Your task to perform on an android device: Search for macbook pro 15 inch on costco.com, select the first entry, and add it to the cart. Image 0: 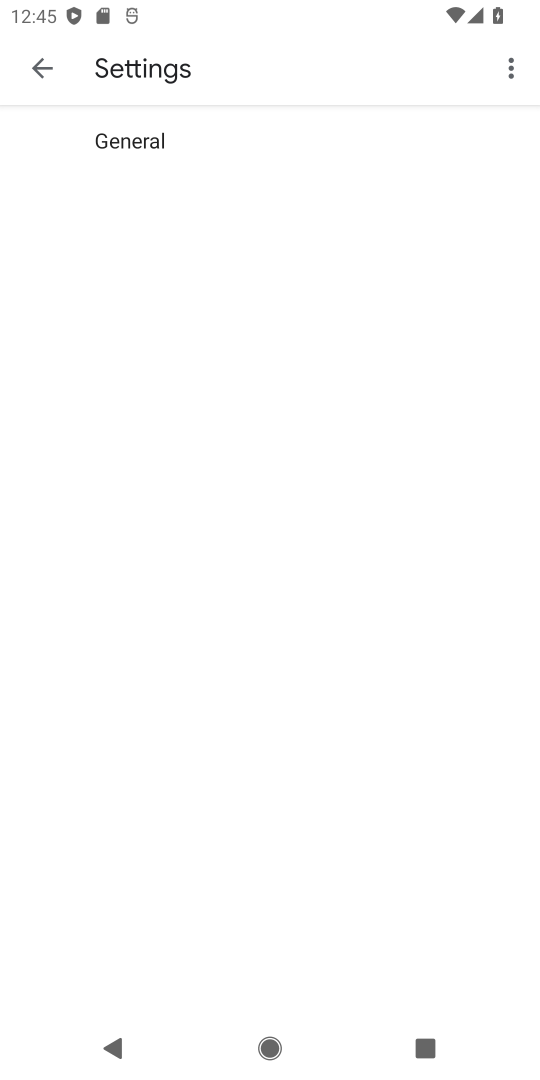
Step 0: press home button
Your task to perform on an android device: Search for macbook pro 15 inch on costco.com, select the first entry, and add it to the cart. Image 1: 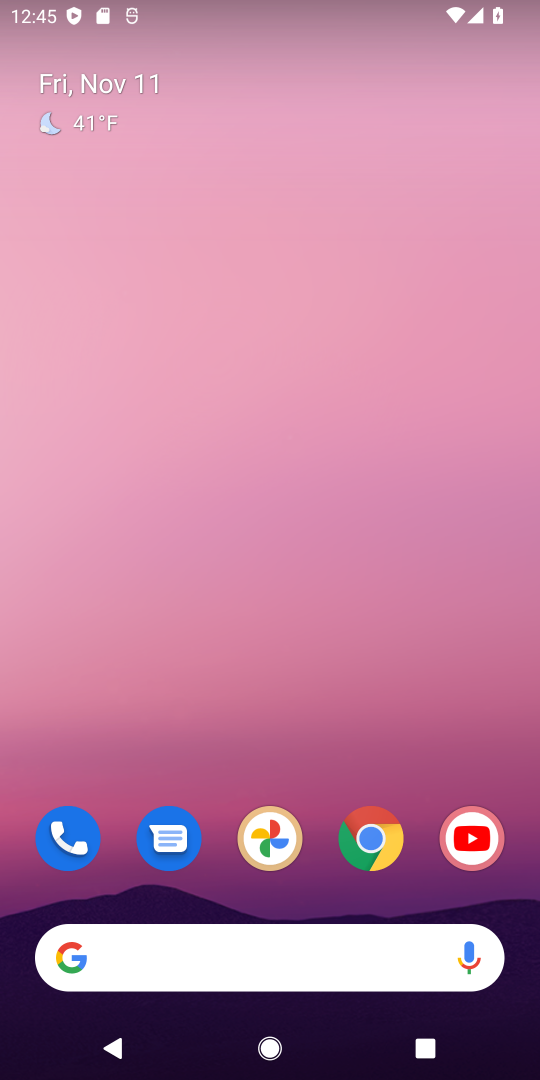
Step 1: click (289, 968)
Your task to perform on an android device: Search for macbook pro 15 inch on costco.com, select the first entry, and add it to the cart. Image 2: 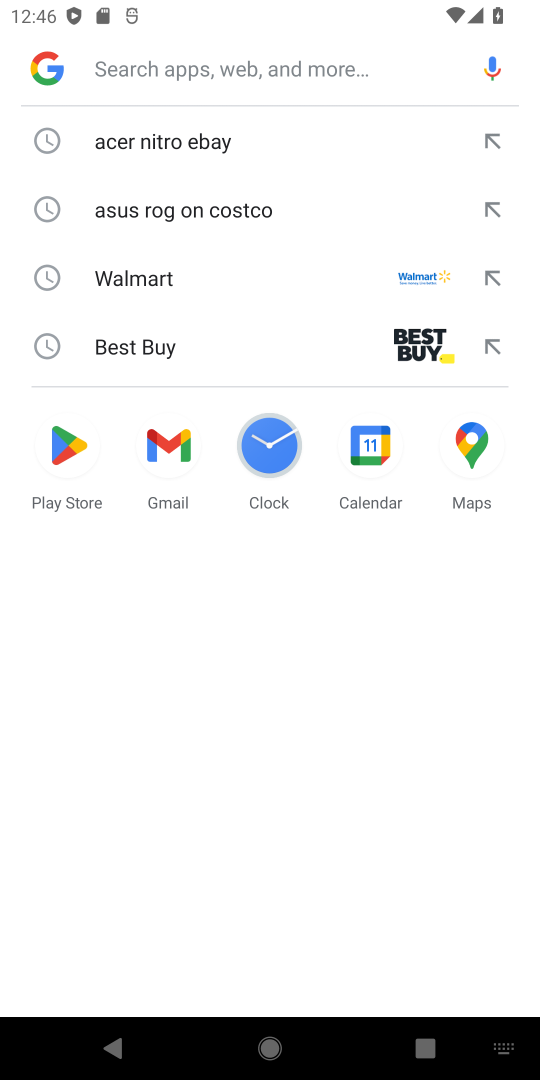
Step 2: type "macbook pro 15 inch on costco"
Your task to perform on an android device: Search for macbook pro 15 inch on costco.com, select the first entry, and add it to the cart. Image 3: 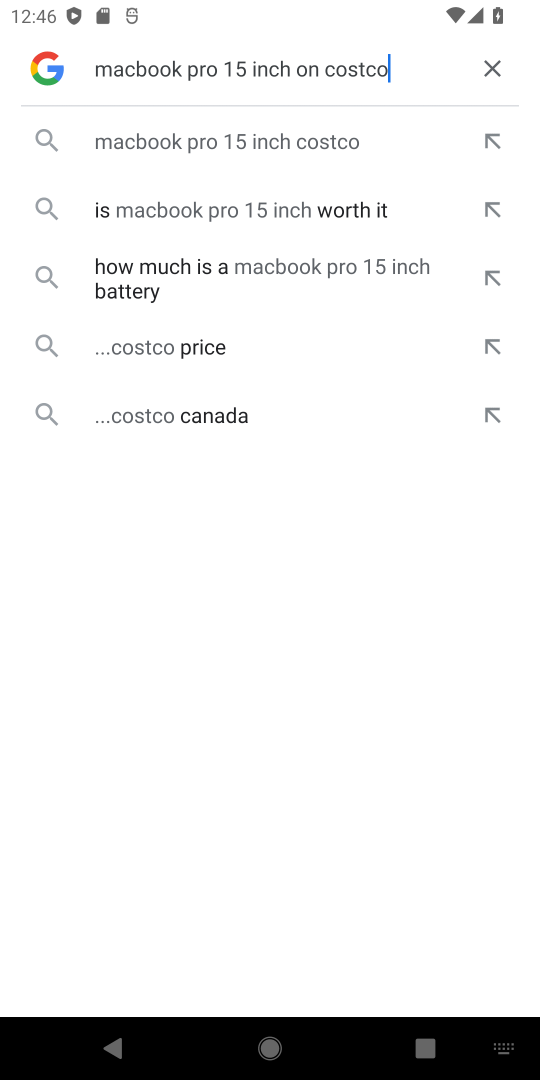
Step 3: click (165, 133)
Your task to perform on an android device: Search for macbook pro 15 inch on costco.com, select the first entry, and add it to the cart. Image 4: 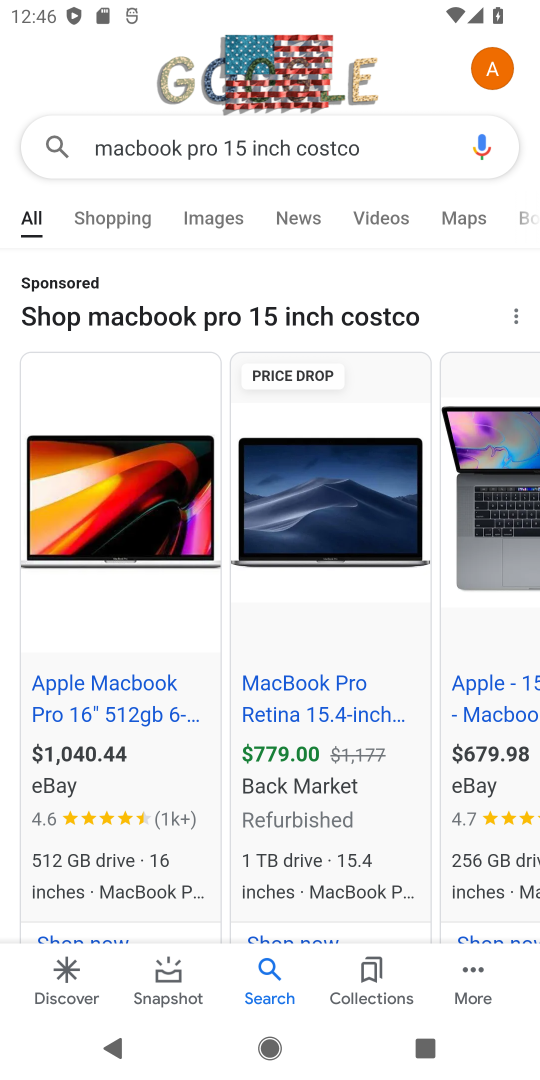
Step 4: drag from (374, 882) to (487, 0)
Your task to perform on an android device: Search for macbook pro 15 inch on costco.com, select the first entry, and add it to the cart. Image 5: 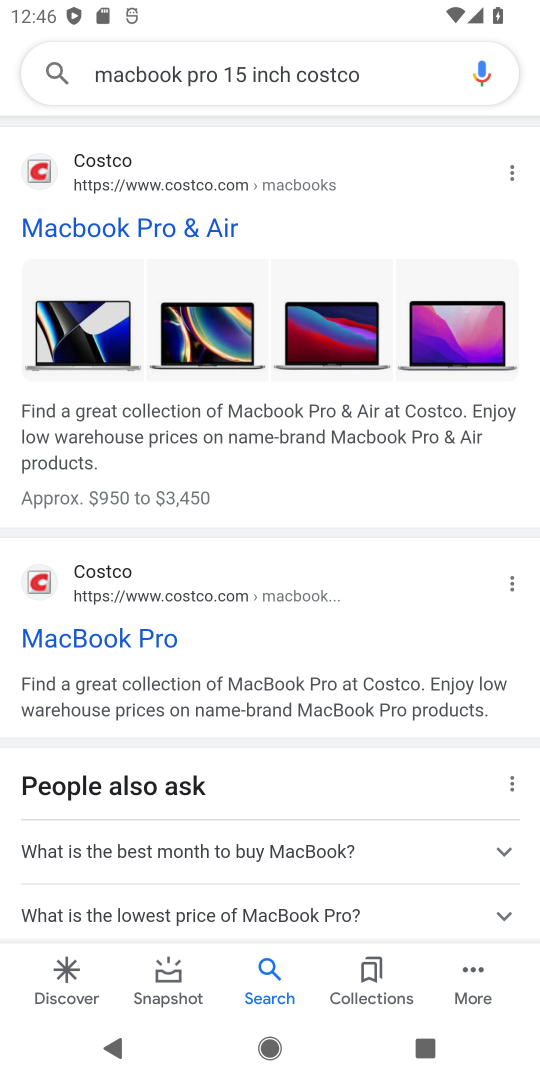
Step 5: click (151, 228)
Your task to perform on an android device: Search for macbook pro 15 inch on costco.com, select the first entry, and add it to the cart. Image 6: 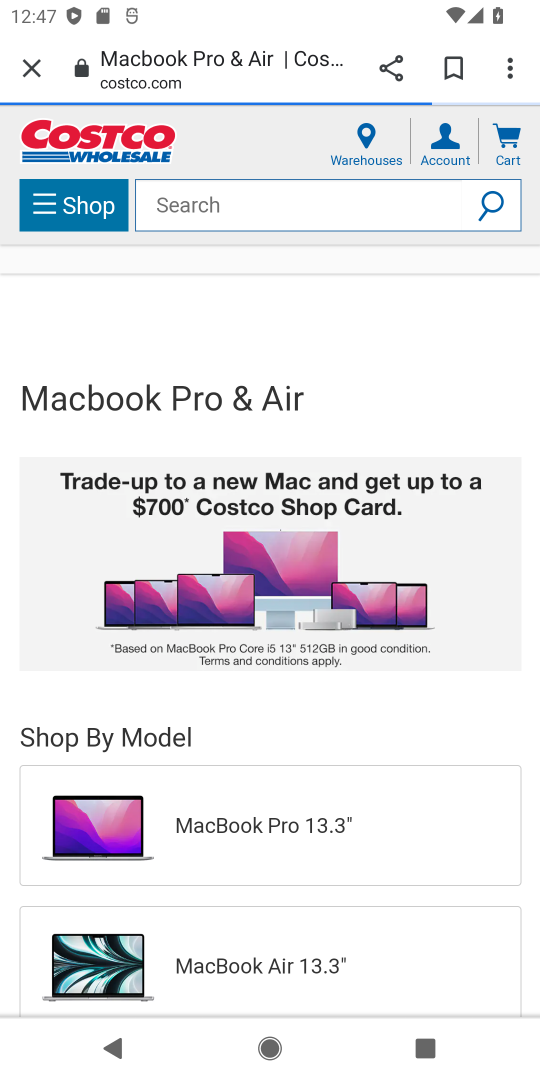
Step 6: drag from (289, 933) to (322, 203)
Your task to perform on an android device: Search for macbook pro 15 inch on costco.com, select the first entry, and add it to the cart. Image 7: 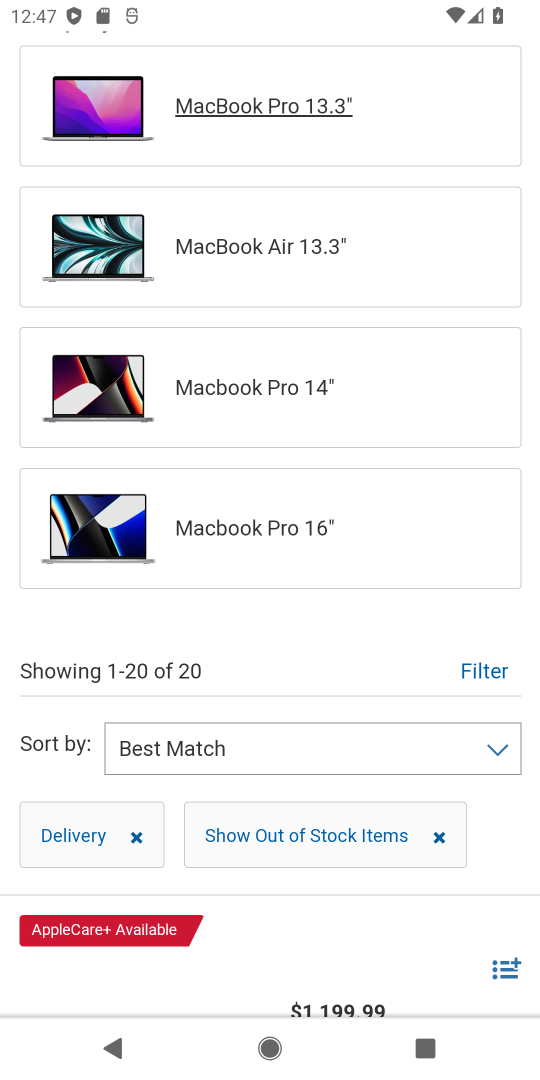
Step 7: drag from (380, 927) to (437, 284)
Your task to perform on an android device: Search for macbook pro 15 inch on costco.com, select the first entry, and add it to the cart. Image 8: 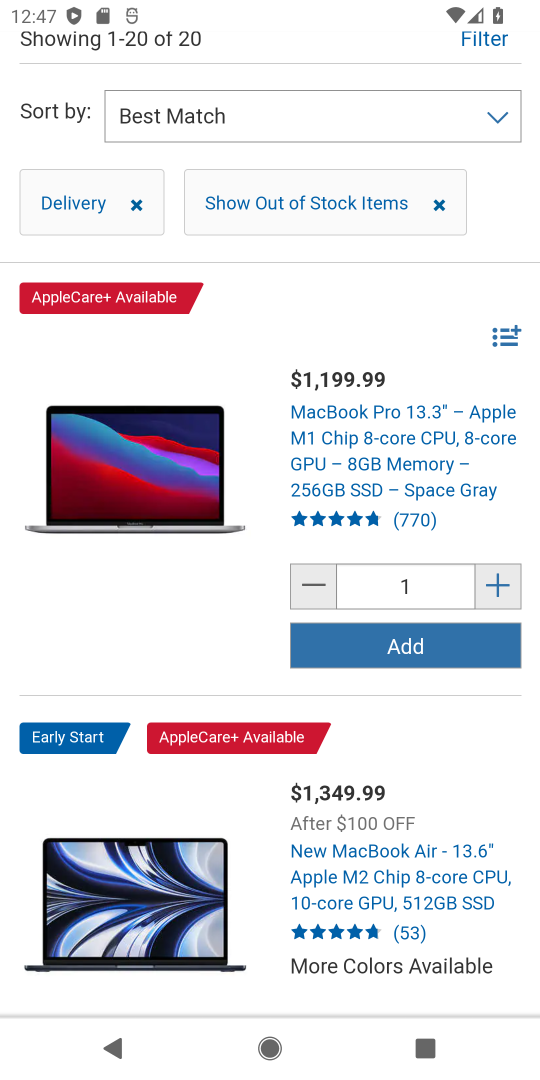
Step 8: click (461, 643)
Your task to perform on an android device: Search for macbook pro 15 inch on costco.com, select the first entry, and add it to the cart. Image 9: 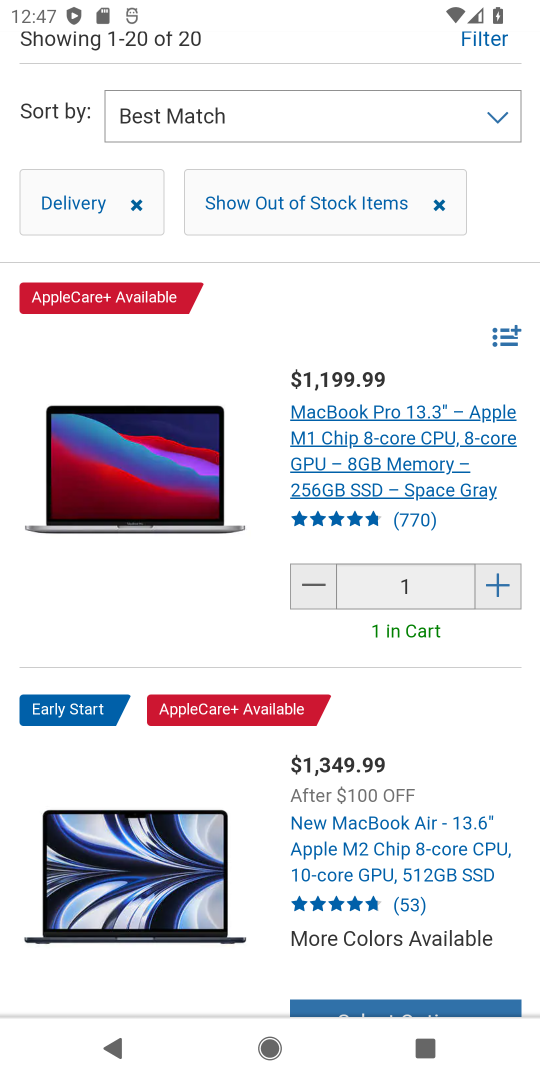
Step 9: task complete